Your task to perform on an android device: refresh tabs in the chrome app Image 0: 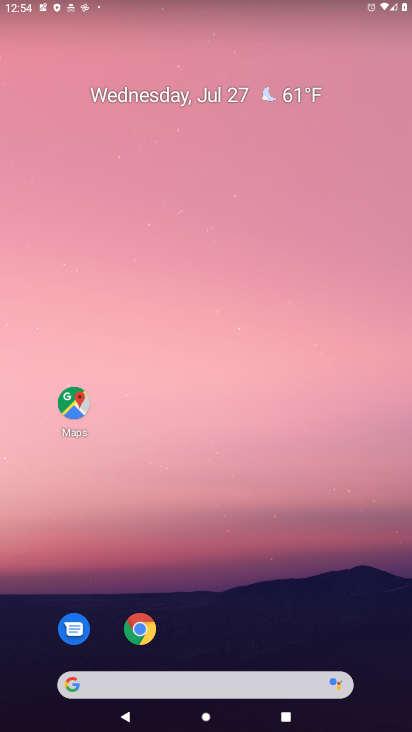
Step 0: click (128, 646)
Your task to perform on an android device: refresh tabs in the chrome app Image 1: 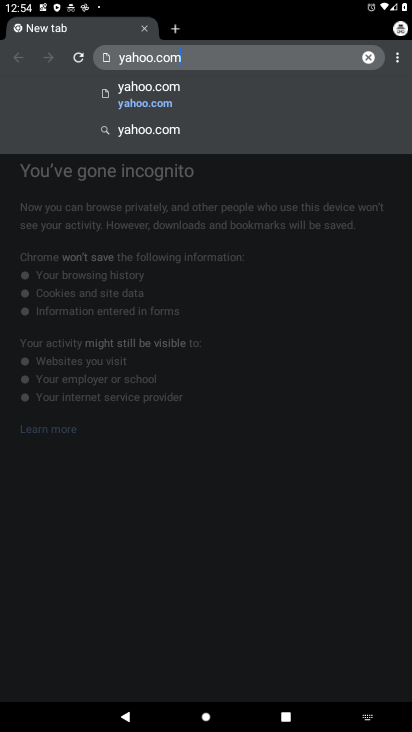
Step 1: task complete